Your task to perform on an android device: Go to ESPN.com Image 0: 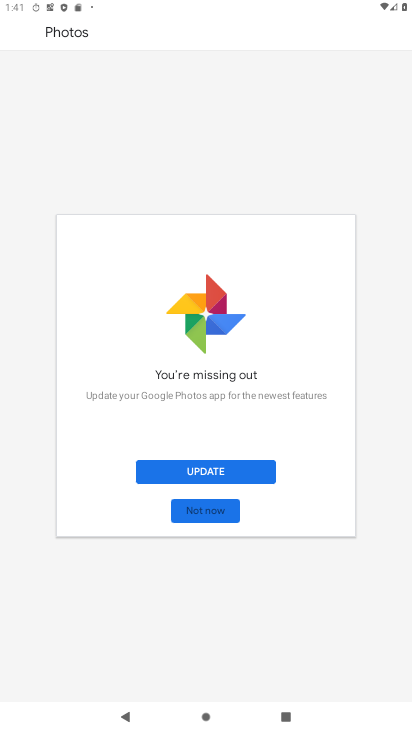
Step 0: press home button
Your task to perform on an android device: Go to ESPN.com Image 1: 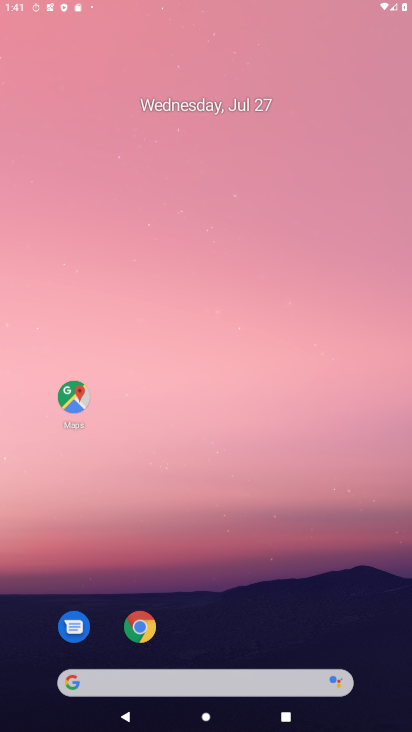
Step 1: drag from (397, 674) to (210, 63)
Your task to perform on an android device: Go to ESPN.com Image 2: 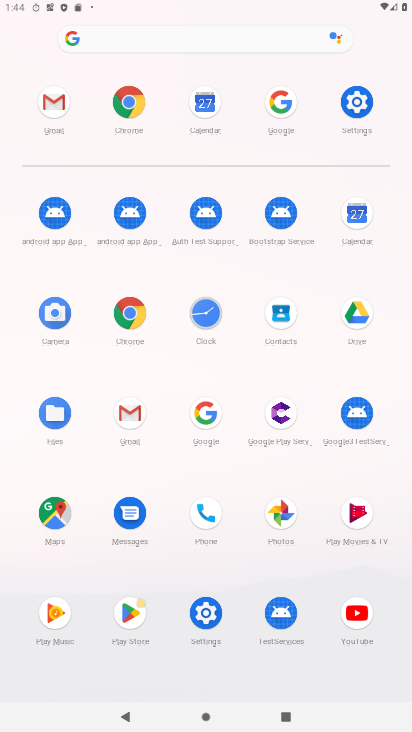
Step 2: click (213, 405)
Your task to perform on an android device: Go to ESPN.com Image 3: 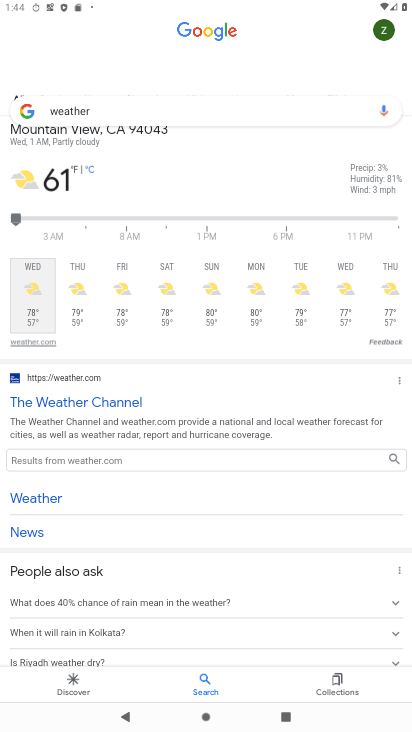
Step 3: press back button
Your task to perform on an android device: Go to ESPN.com Image 4: 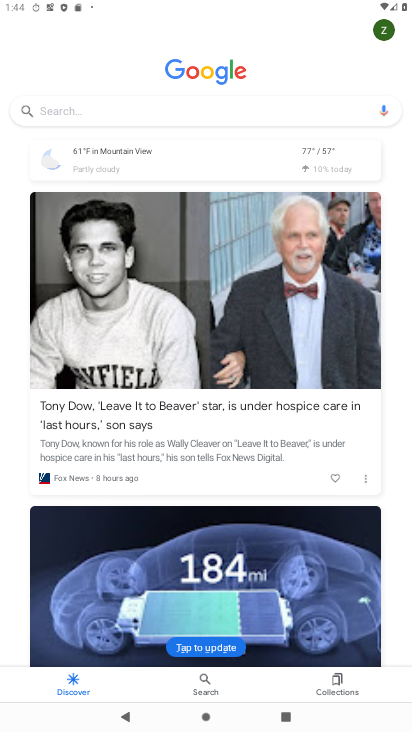
Step 4: click (99, 115)
Your task to perform on an android device: Go to ESPN.com Image 5: 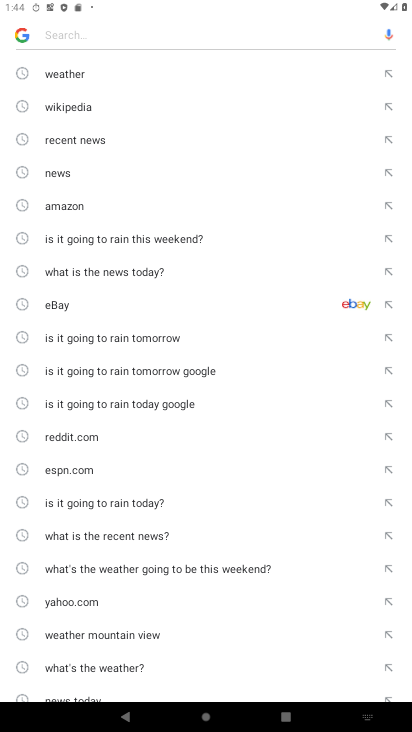
Step 5: type "ESPN.com"
Your task to perform on an android device: Go to ESPN.com Image 6: 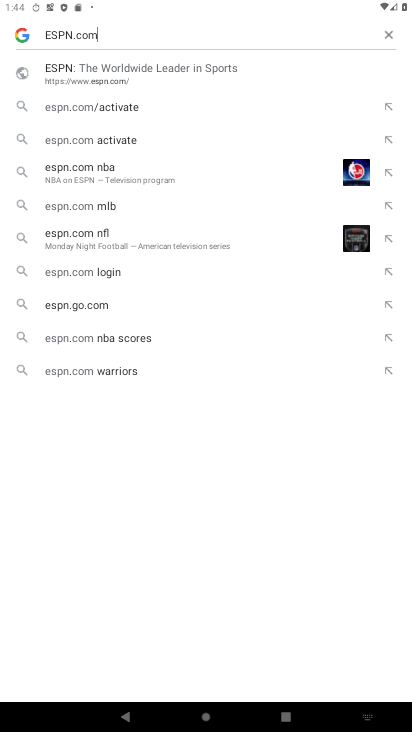
Step 6: click (93, 77)
Your task to perform on an android device: Go to ESPN.com Image 7: 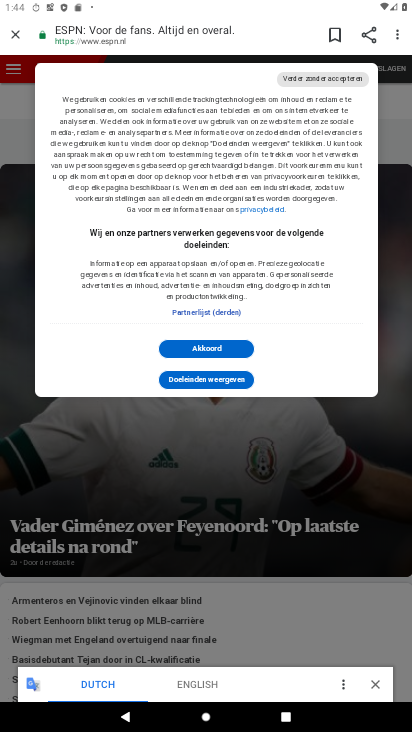
Step 7: task complete